Your task to perform on an android device: Open settings on Google Maps Image 0: 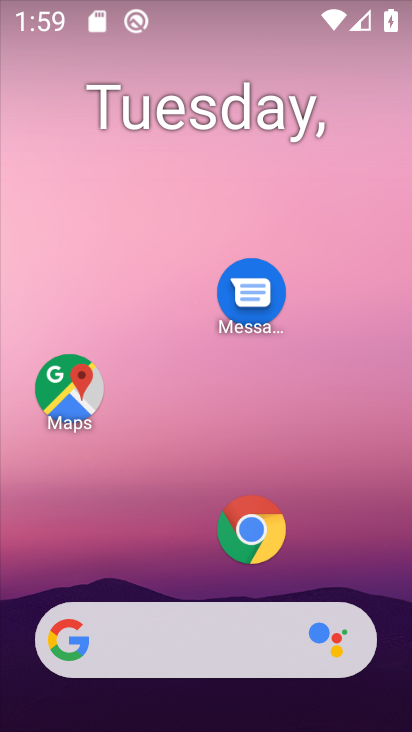
Step 0: drag from (181, 539) to (146, 141)
Your task to perform on an android device: Open settings on Google Maps Image 1: 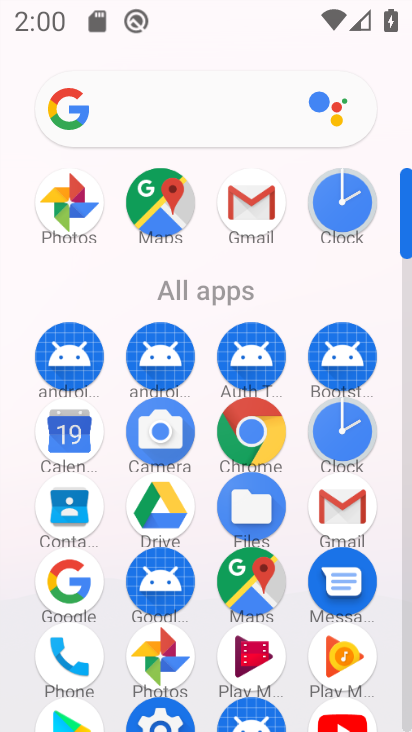
Step 1: click (161, 204)
Your task to perform on an android device: Open settings on Google Maps Image 2: 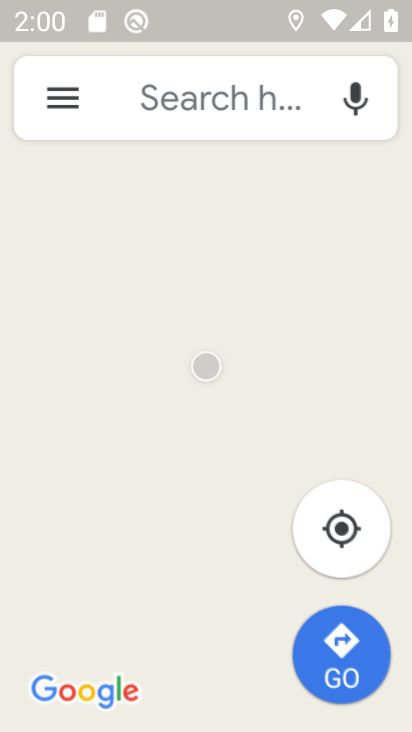
Step 2: click (61, 99)
Your task to perform on an android device: Open settings on Google Maps Image 3: 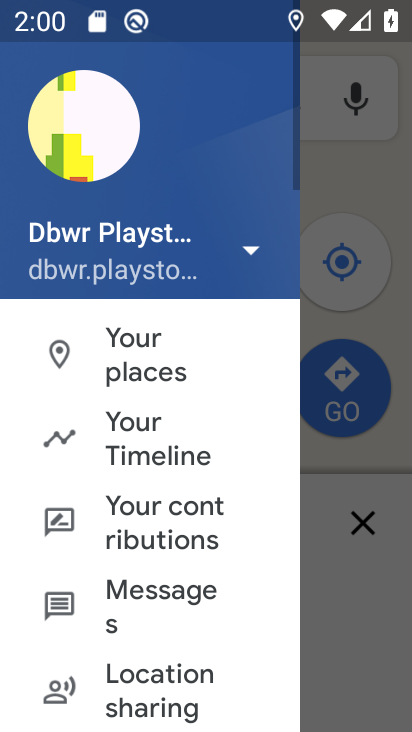
Step 3: drag from (192, 658) to (197, 347)
Your task to perform on an android device: Open settings on Google Maps Image 4: 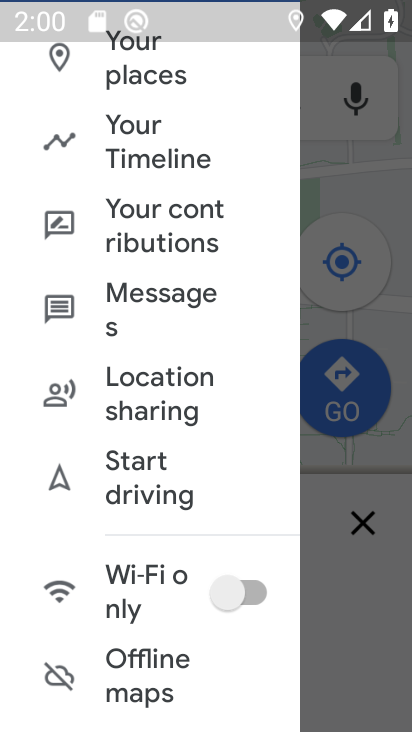
Step 4: drag from (129, 541) to (139, 264)
Your task to perform on an android device: Open settings on Google Maps Image 5: 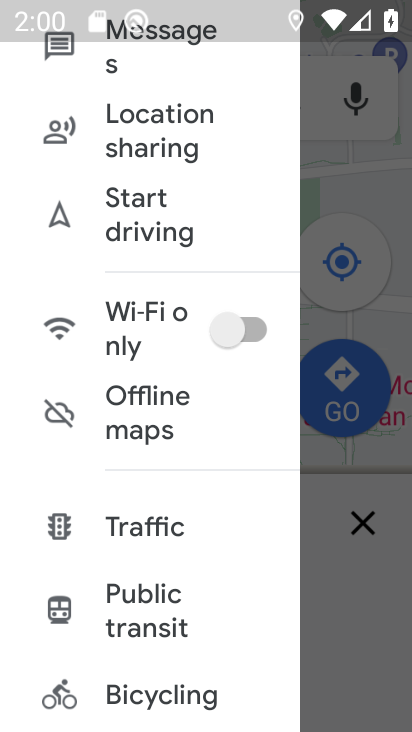
Step 5: drag from (153, 562) to (156, 80)
Your task to perform on an android device: Open settings on Google Maps Image 6: 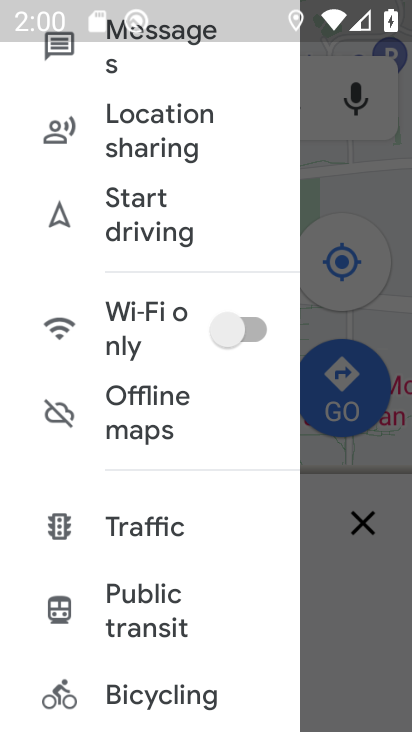
Step 6: drag from (30, 641) to (66, 262)
Your task to perform on an android device: Open settings on Google Maps Image 7: 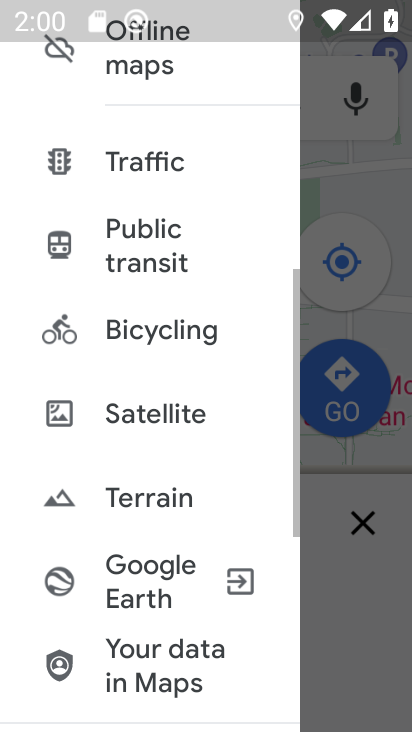
Step 7: drag from (85, 437) to (87, 184)
Your task to perform on an android device: Open settings on Google Maps Image 8: 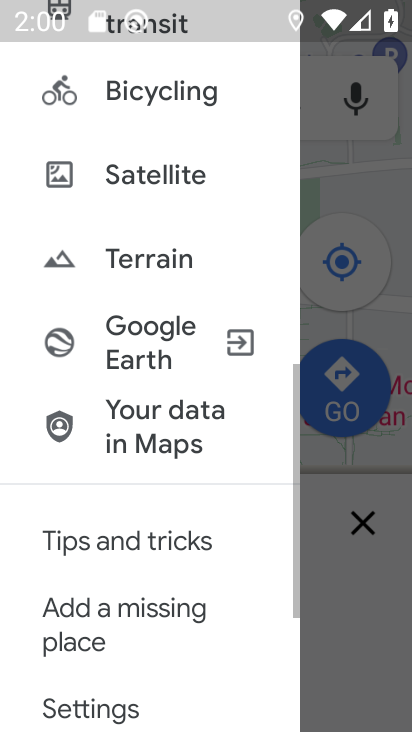
Step 8: drag from (108, 555) to (104, 369)
Your task to perform on an android device: Open settings on Google Maps Image 9: 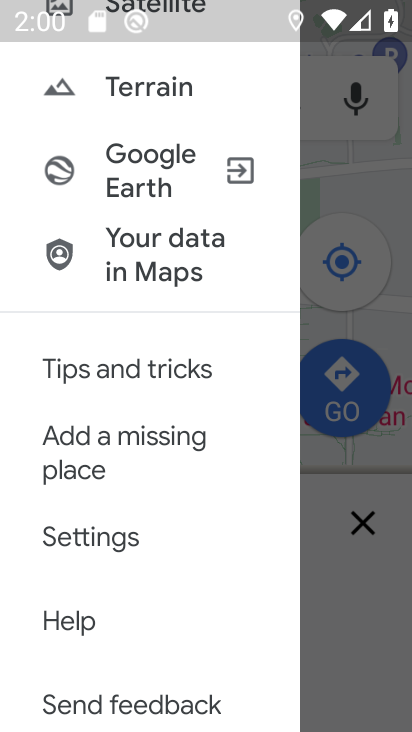
Step 9: click (110, 535)
Your task to perform on an android device: Open settings on Google Maps Image 10: 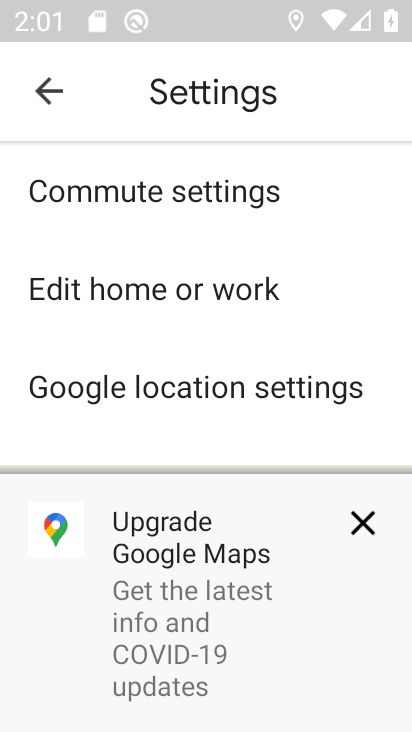
Step 10: task complete